Your task to perform on an android device: turn on javascript in the chrome app Image 0: 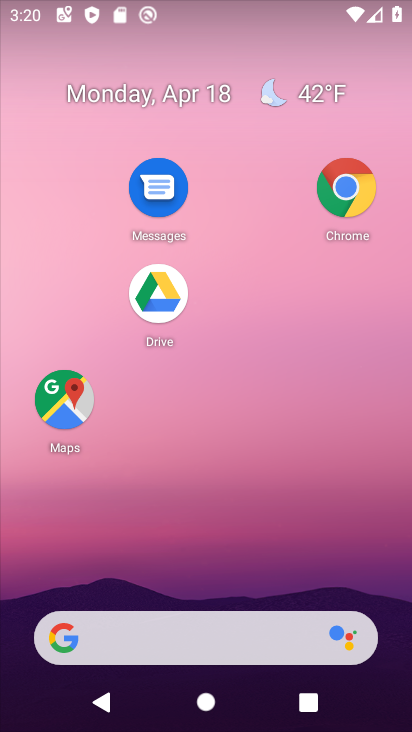
Step 0: click (345, 186)
Your task to perform on an android device: turn on javascript in the chrome app Image 1: 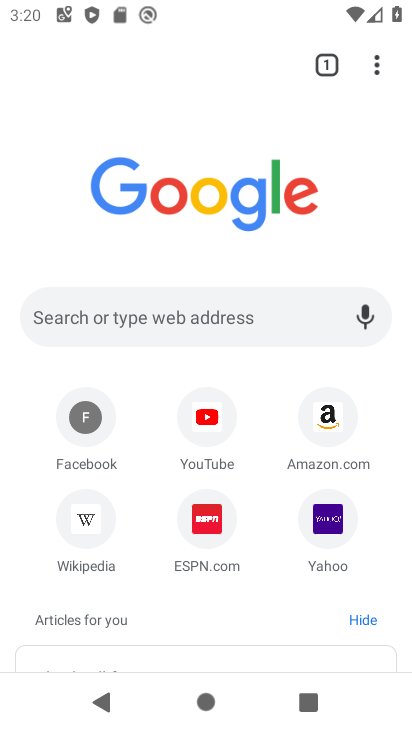
Step 1: click (376, 65)
Your task to perform on an android device: turn on javascript in the chrome app Image 2: 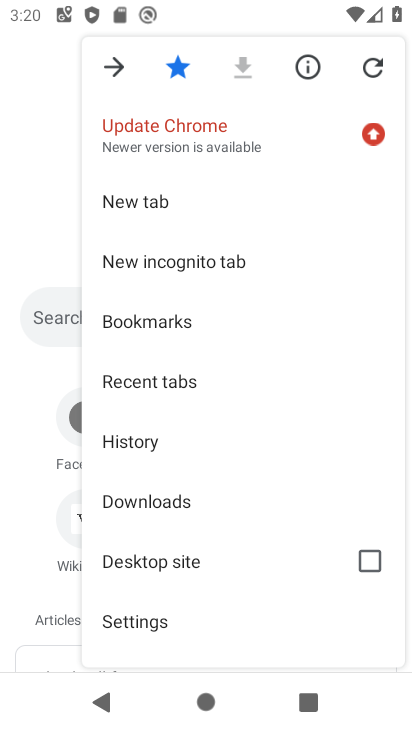
Step 2: drag from (205, 481) to (239, 353)
Your task to perform on an android device: turn on javascript in the chrome app Image 3: 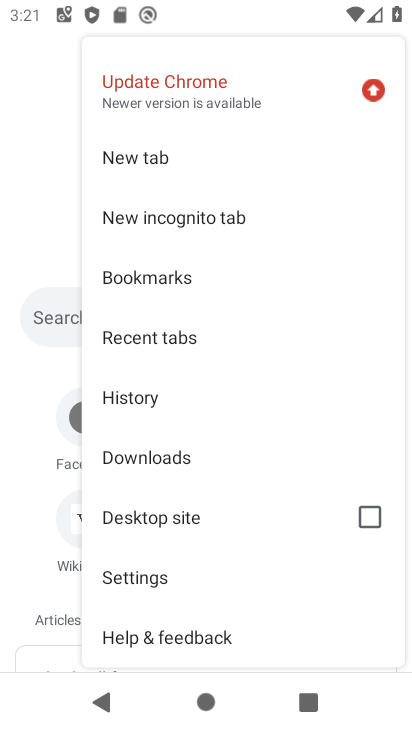
Step 3: click (136, 574)
Your task to perform on an android device: turn on javascript in the chrome app Image 4: 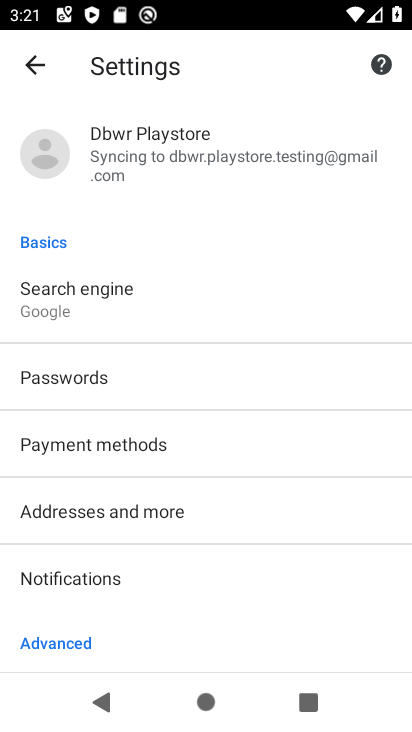
Step 4: drag from (199, 499) to (235, 395)
Your task to perform on an android device: turn on javascript in the chrome app Image 5: 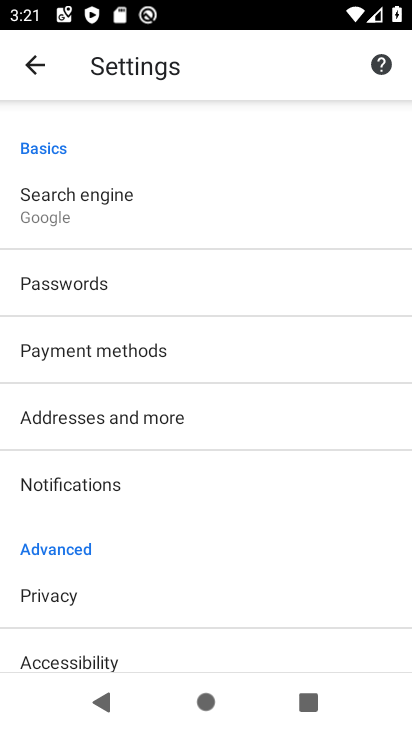
Step 5: drag from (182, 533) to (195, 436)
Your task to perform on an android device: turn on javascript in the chrome app Image 6: 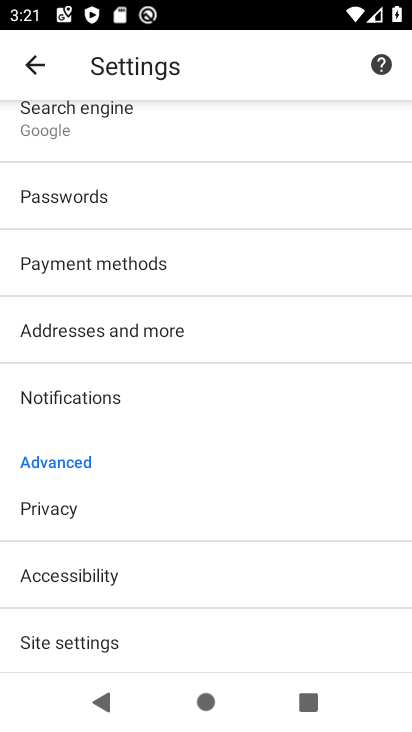
Step 6: drag from (133, 532) to (151, 448)
Your task to perform on an android device: turn on javascript in the chrome app Image 7: 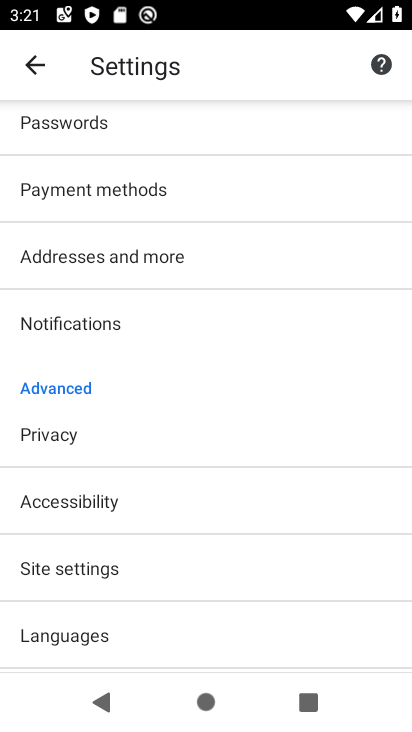
Step 7: drag from (135, 522) to (155, 425)
Your task to perform on an android device: turn on javascript in the chrome app Image 8: 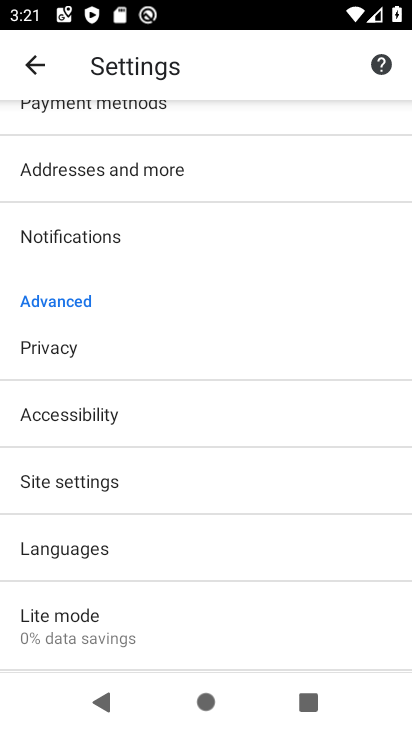
Step 8: click (104, 487)
Your task to perform on an android device: turn on javascript in the chrome app Image 9: 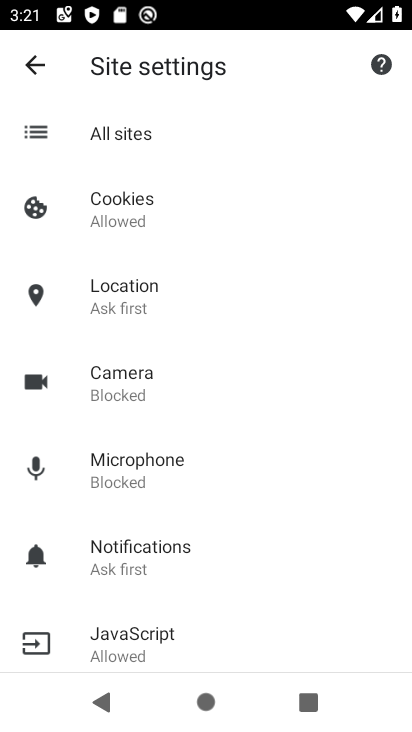
Step 9: drag from (217, 519) to (223, 423)
Your task to perform on an android device: turn on javascript in the chrome app Image 10: 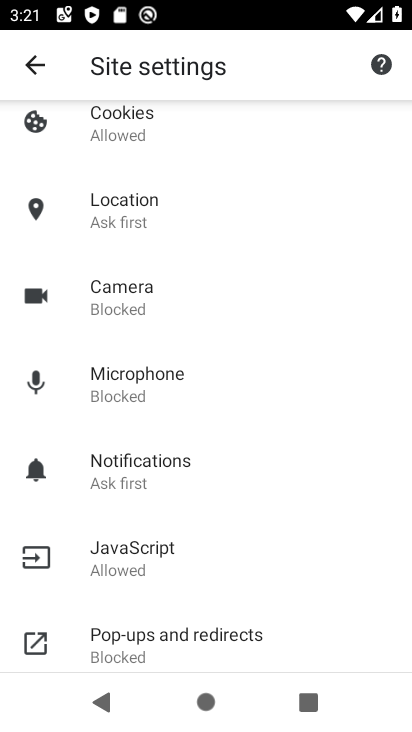
Step 10: click (147, 553)
Your task to perform on an android device: turn on javascript in the chrome app Image 11: 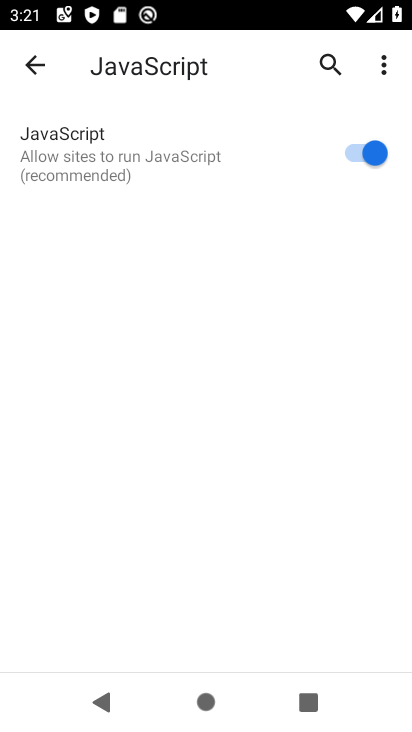
Step 11: task complete